Your task to perform on an android device: install app "Paramount+ | Peak Streaming" Image 0: 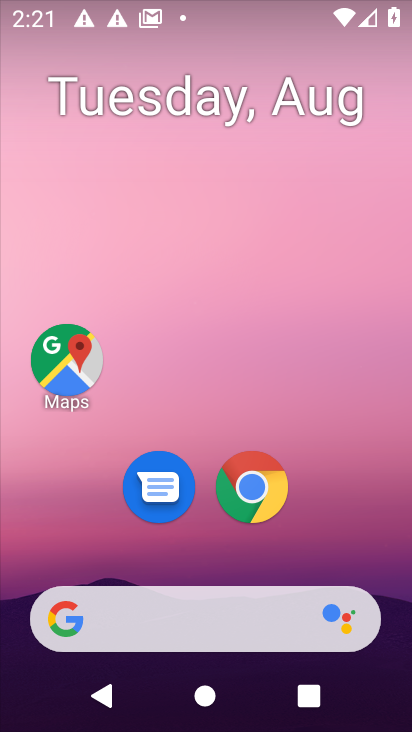
Step 0: drag from (193, 626) to (254, 2)
Your task to perform on an android device: install app "Paramount+ | Peak Streaming" Image 1: 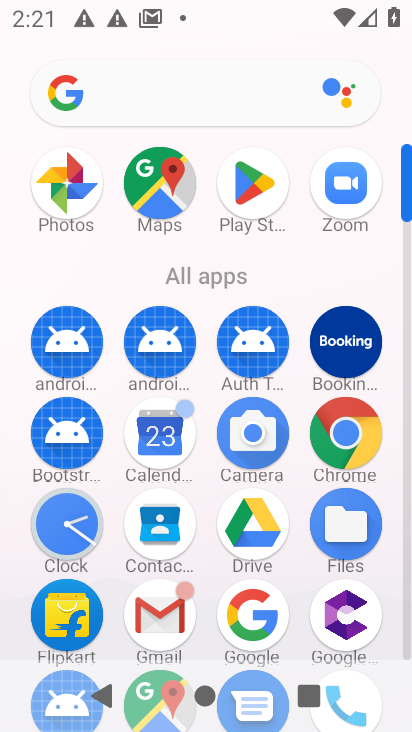
Step 1: click (254, 196)
Your task to perform on an android device: install app "Paramount+ | Peak Streaming" Image 2: 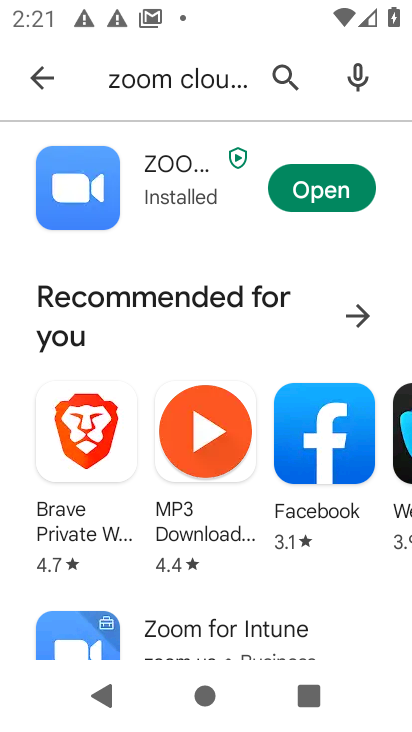
Step 2: press back button
Your task to perform on an android device: install app "Paramount+ | Peak Streaming" Image 3: 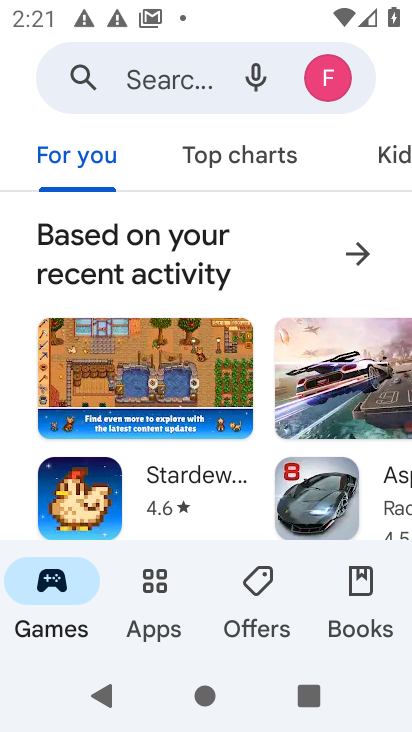
Step 3: click (157, 78)
Your task to perform on an android device: install app "Paramount+ | Peak Streaming" Image 4: 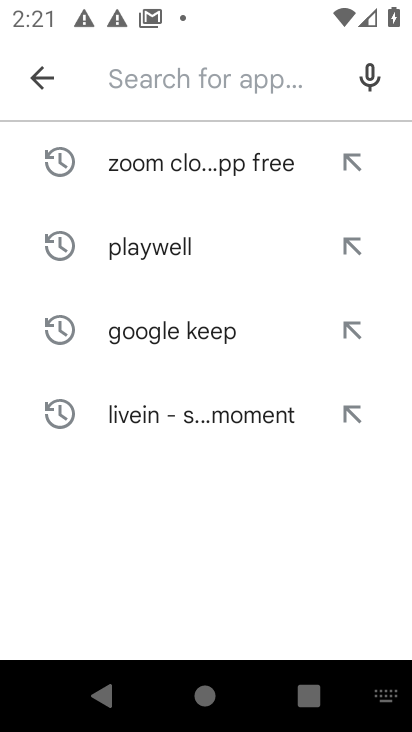
Step 4: click (150, 95)
Your task to perform on an android device: install app "Paramount+ | Peak Streaming" Image 5: 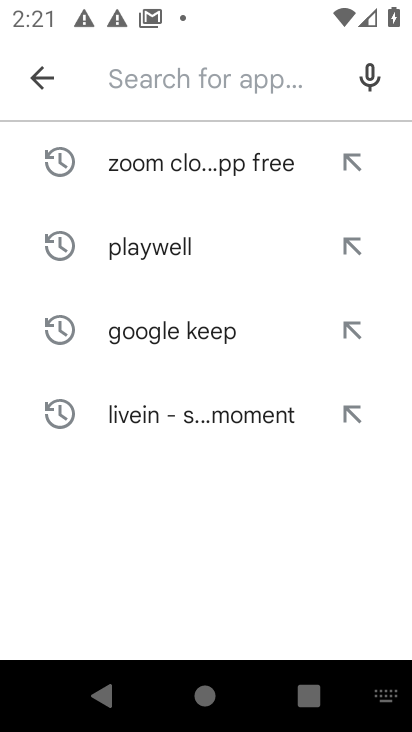
Step 5: type "Paramount+ | Peak Streaming"
Your task to perform on an android device: install app "Paramount+ | Peak Streaming" Image 6: 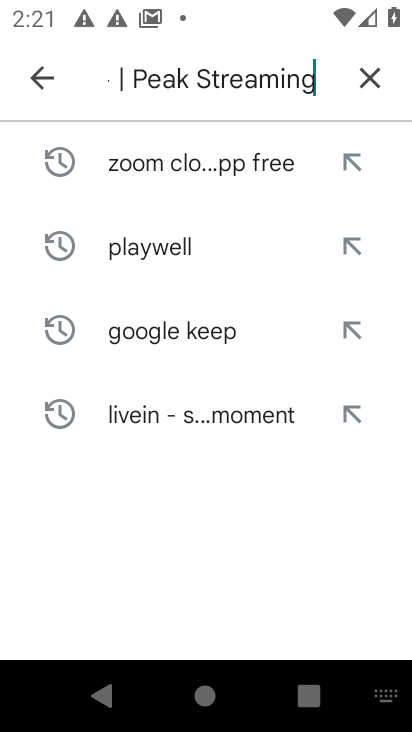
Step 6: type ""
Your task to perform on an android device: install app "Paramount+ | Peak Streaming" Image 7: 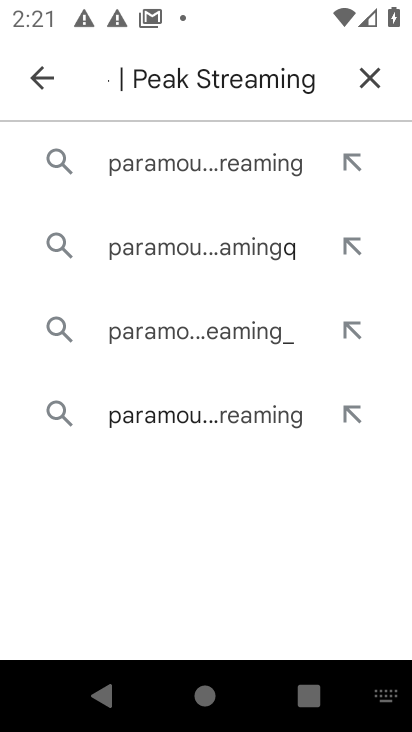
Step 7: click (241, 177)
Your task to perform on an android device: install app "Paramount+ | Peak Streaming" Image 8: 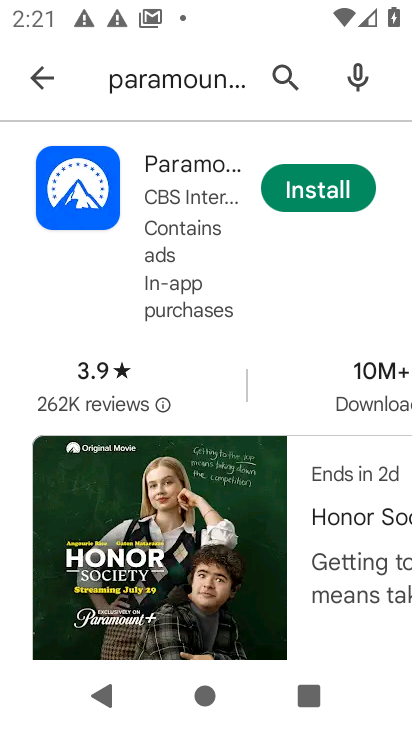
Step 8: click (185, 166)
Your task to perform on an android device: install app "Paramount+ | Peak Streaming" Image 9: 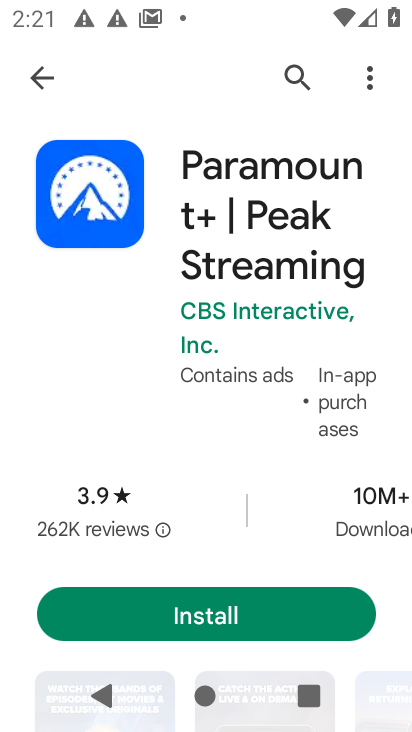
Step 9: click (194, 612)
Your task to perform on an android device: install app "Paramount+ | Peak Streaming" Image 10: 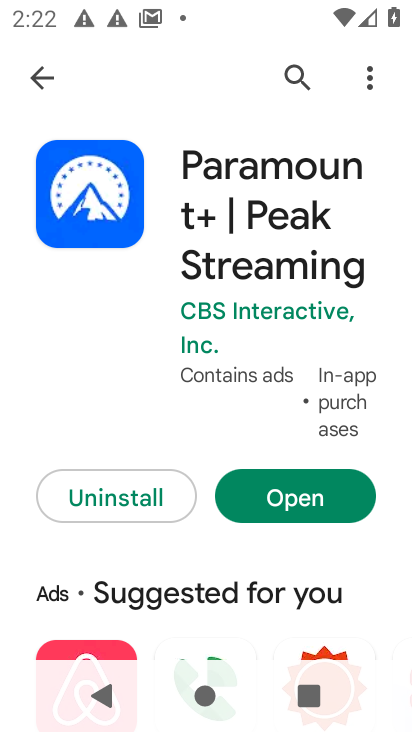
Step 10: task complete